Your task to perform on an android device: Open Google Maps Image 0: 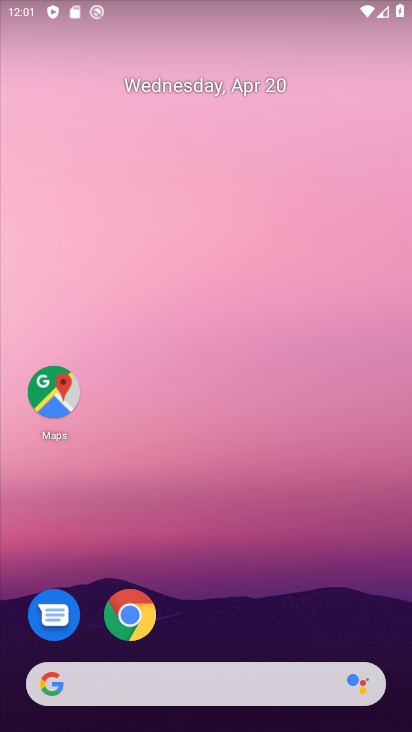
Step 0: click (65, 388)
Your task to perform on an android device: Open Google Maps Image 1: 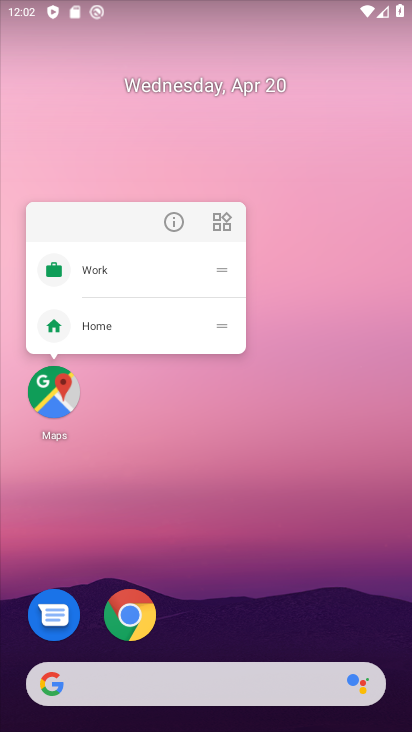
Step 1: click (57, 390)
Your task to perform on an android device: Open Google Maps Image 2: 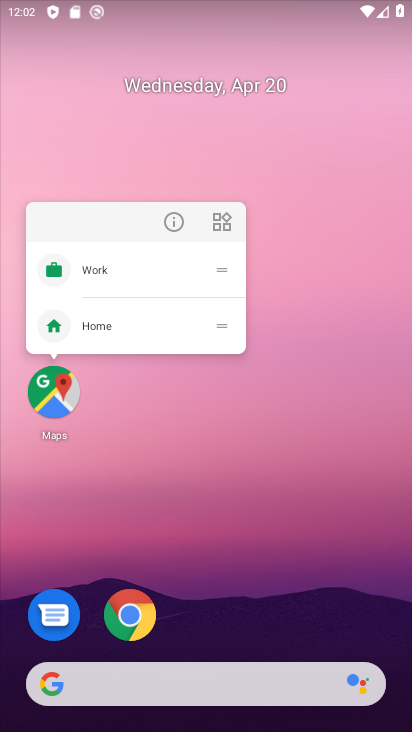
Step 2: click (111, 409)
Your task to perform on an android device: Open Google Maps Image 3: 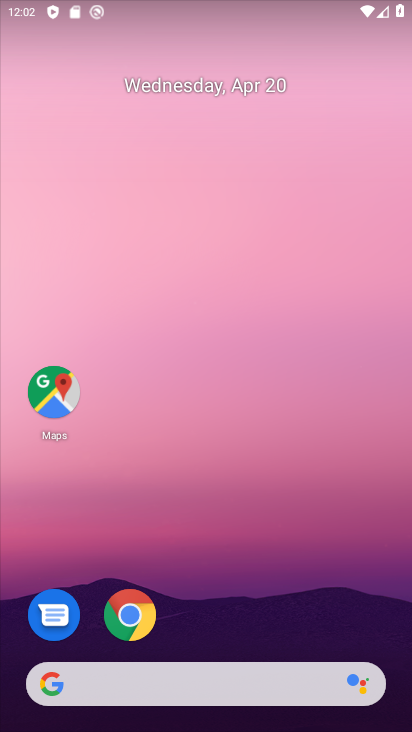
Step 3: click (53, 392)
Your task to perform on an android device: Open Google Maps Image 4: 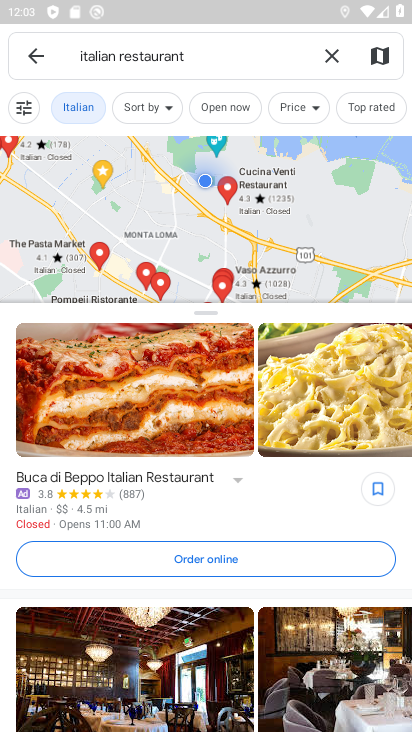
Step 4: task complete